Your task to perform on an android device: turn on airplane mode Image 0: 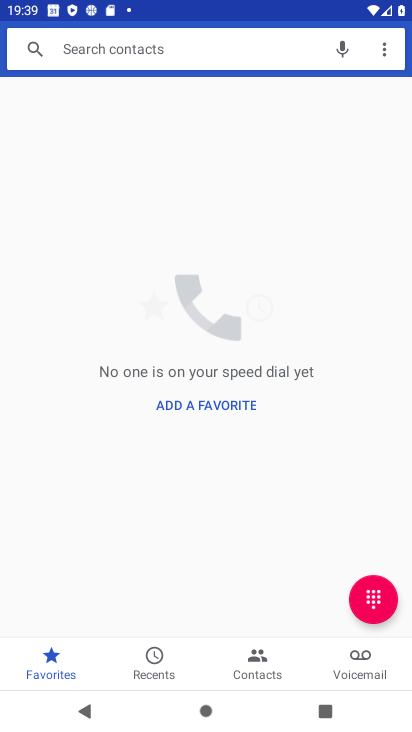
Step 0: press home button
Your task to perform on an android device: turn on airplane mode Image 1: 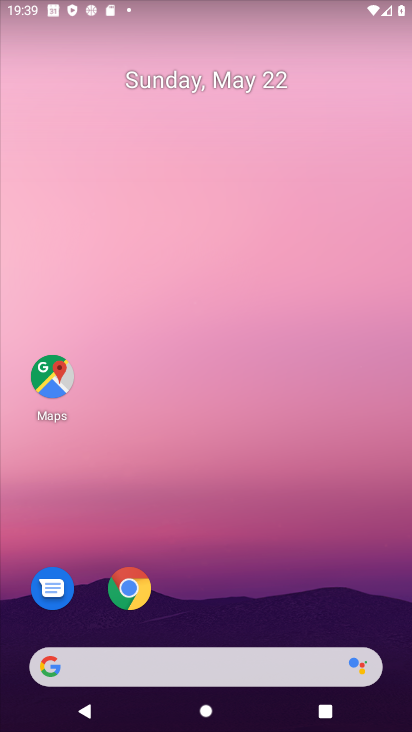
Step 1: drag from (255, 514) to (173, 84)
Your task to perform on an android device: turn on airplane mode Image 2: 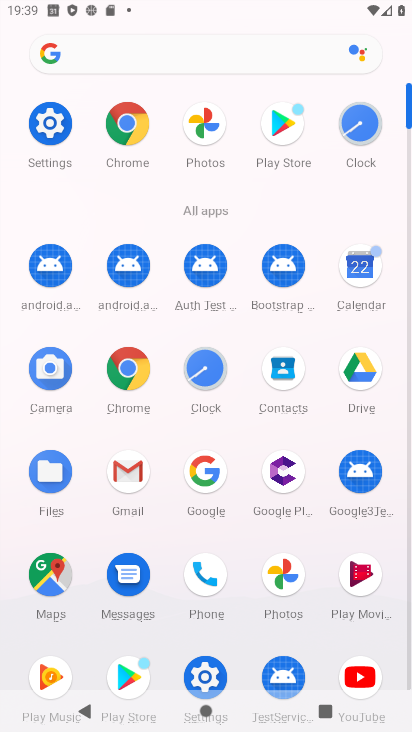
Step 2: click (50, 125)
Your task to perform on an android device: turn on airplane mode Image 3: 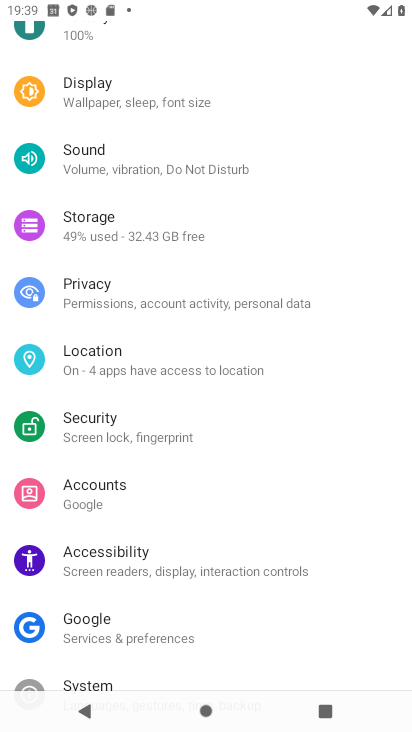
Step 3: drag from (305, 162) to (327, 687)
Your task to perform on an android device: turn on airplane mode Image 4: 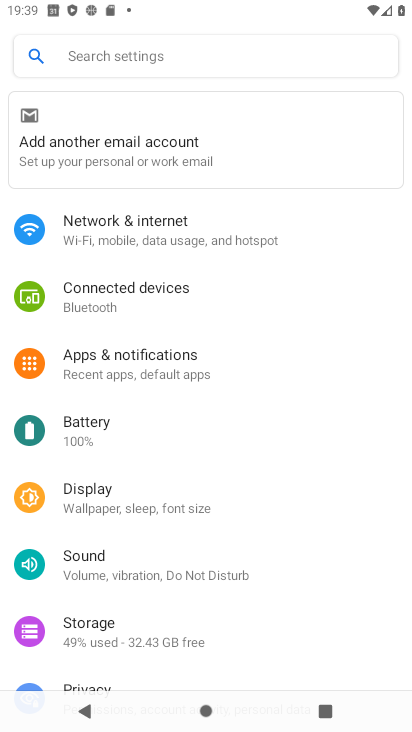
Step 4: click (102, 219)
Your task to perform on an android device: turn on airplane mode Image 5: 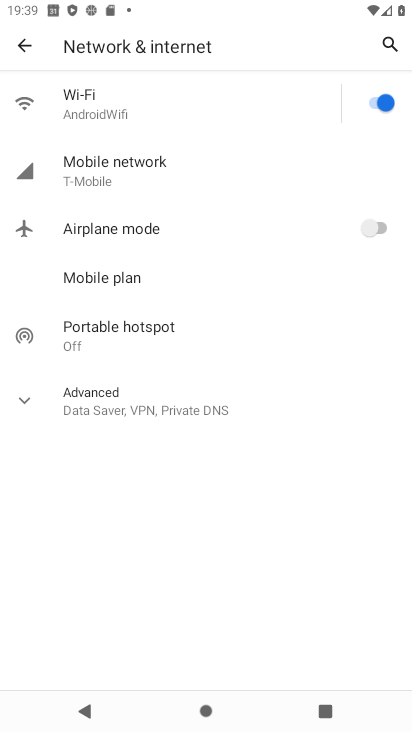
Step 5: click (366, 226)
Your task to perform on an android device: turn on airplane mode Image 6: 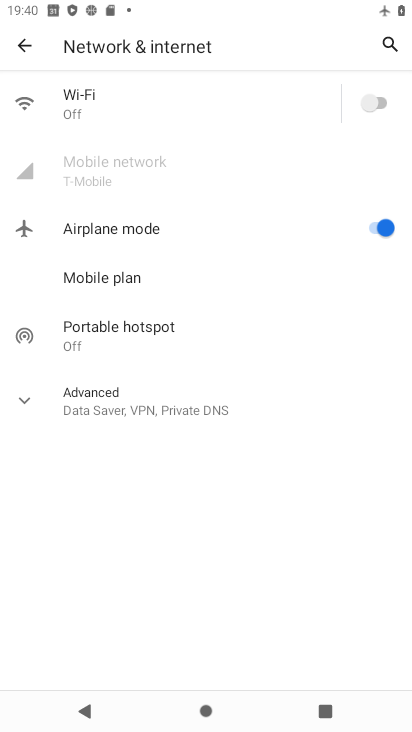
Step 6: task complete